Your task to perform on an android device: turn off smart reply in the gmail app Image 0: 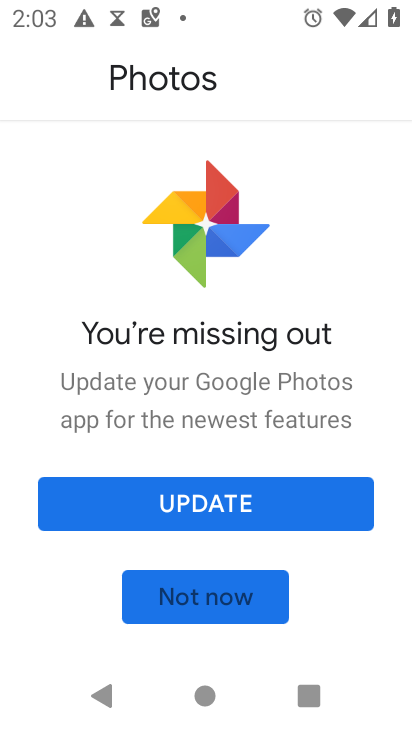
Step 0: press home button
Your task to perform on an android device: turn off smart reply in the gmail app Image 1: 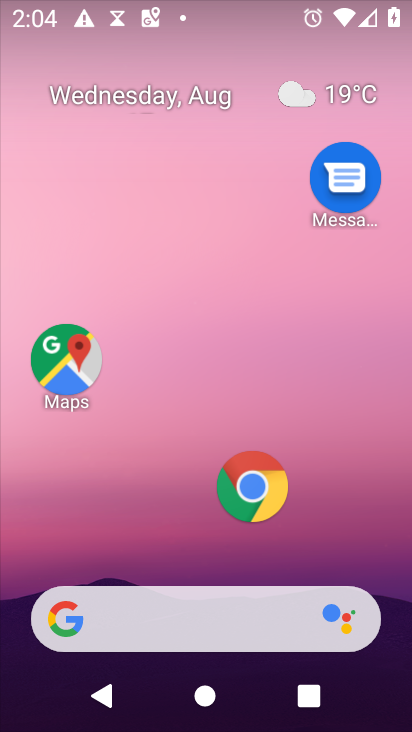
Step 1: drag from (166, 541) to (241, 51)
Your task to perform on an android device: turn off smart reply in the gmail app Image 2: 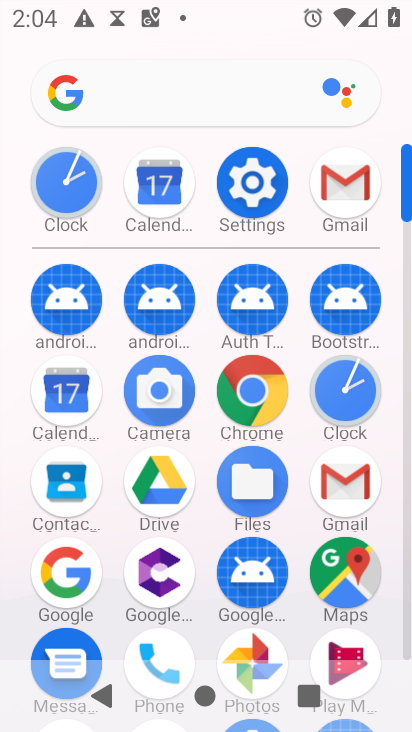
Step 2: click (348, 189)
Your task to perform on an android device: turn off smart reply in the gmail app Image 3: 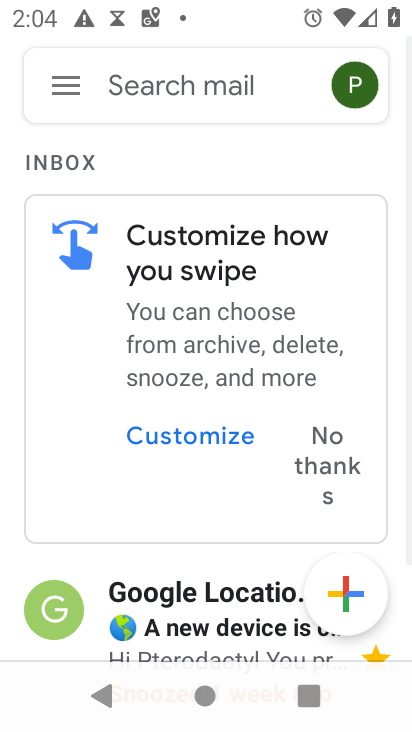
Step 3: click (73, 74)
Your task to perform on an android device: turn off smart reply in the gmail app Image 4: 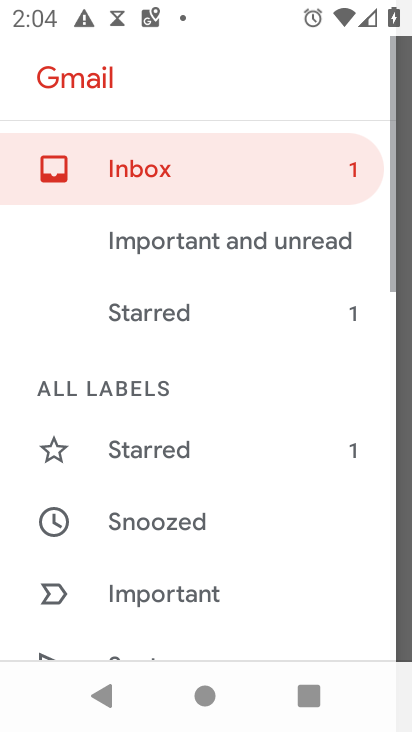
Step 4: drag from (222, 544) to (281, 26)
Your task to perform on an android device: turn off smart reply in the gmail app Image 5: 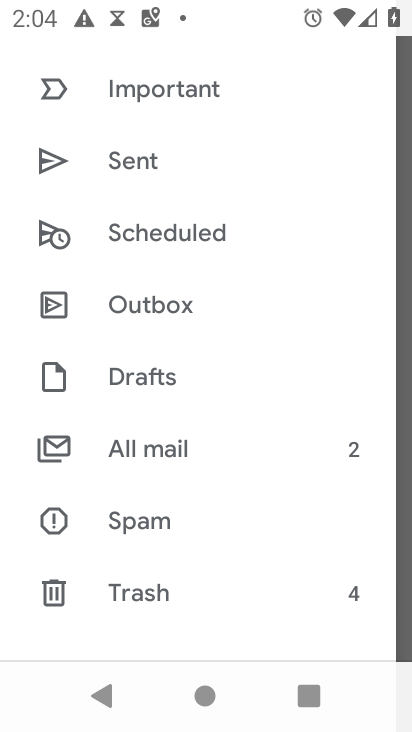
Step 5: drag from (178, 583) to (258, 42)
Your task to perform on an android device: turn off smart reply in the gmail app Image 6: 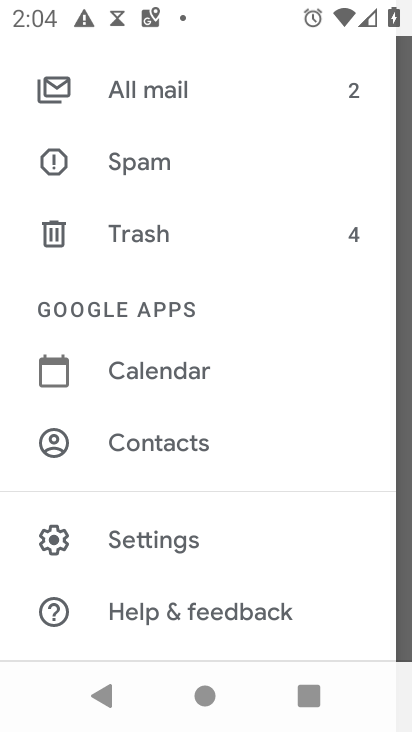
Step 6: click (129, 547)
Your task to perform on an android device: turn off smart reply in the gmail app Image 7: 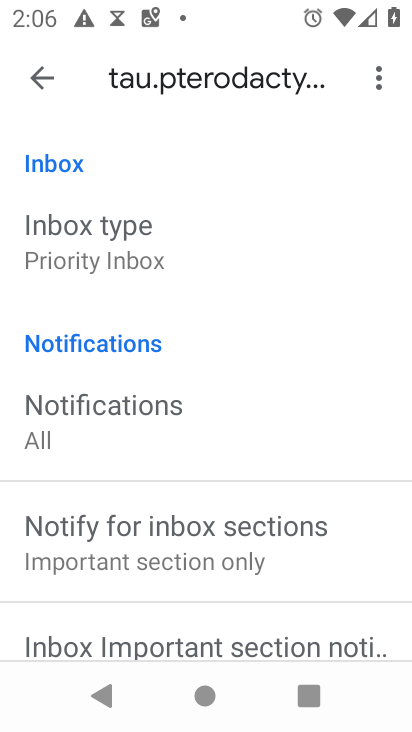
Step 7: task complete